Your task to perform on an android device: snooze an email in the gmail app Image 0: 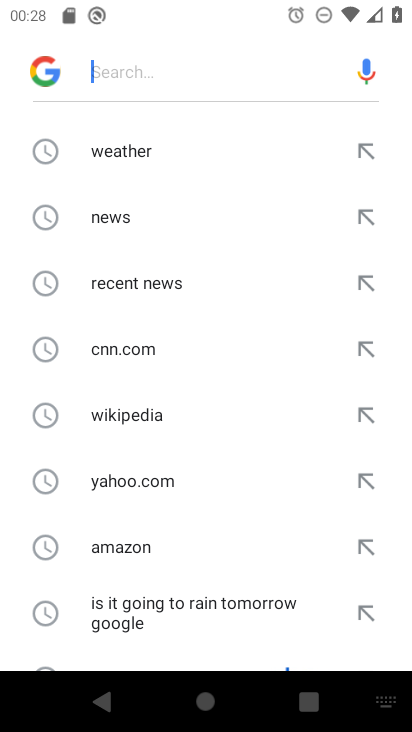
Step 0: press home button
Your task to perform on an android device: snooze an email in the gmail app Image 1: 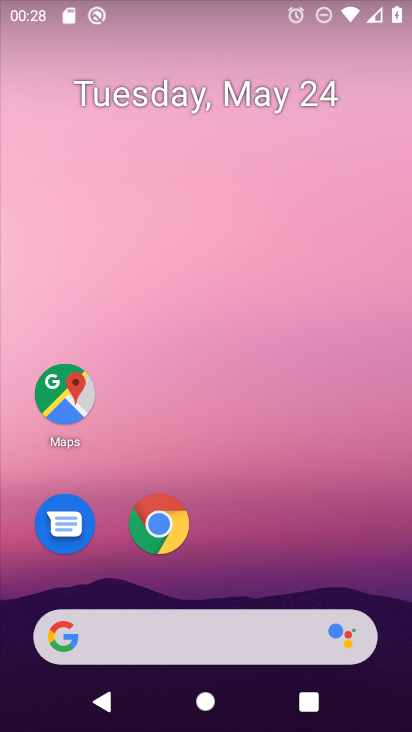
Step 1: drag from (213, 589) to (220, 173)
Your task to perform on an android device: snooze an email in the gmail app Image 2: 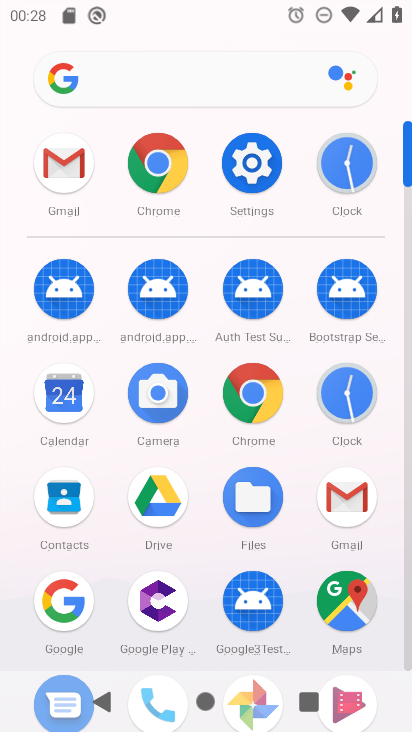
Step 2: click (71, 173)
Your task to perform on an android device: snooze an email in the gmail app Image 3: 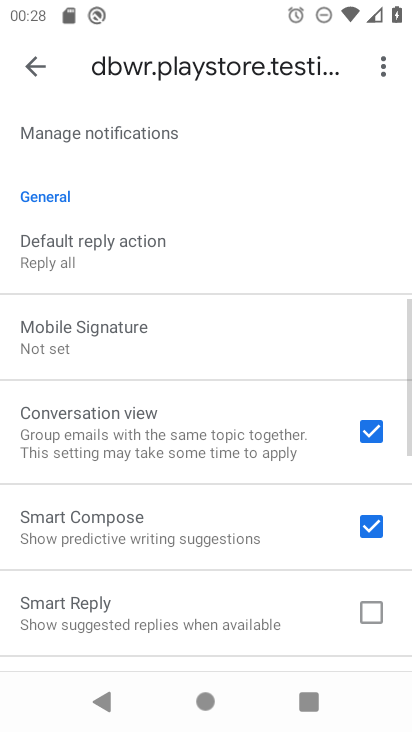
Step 3: drag from (124, 192) to (140, 539)
Your task to perform on an android device: snooze an email in the gmail app Image 4: 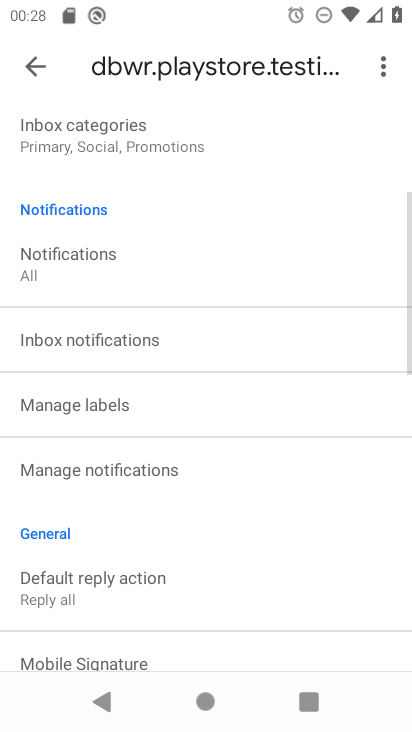
Step 4: drag from (175, 144) to (201, 297)
Your task to perform on an android device: snooze an email in the gmail app Image 5: 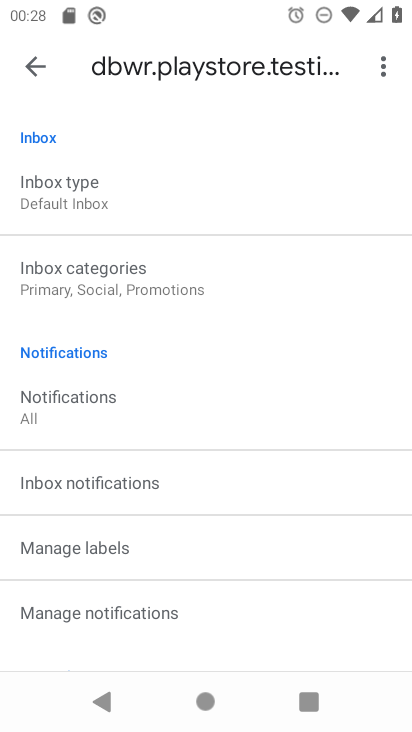
Step 5: drag from (215, 180) to (233, 357)
Your task to perform on an android device: snooze an email in the gmail app Image 6: 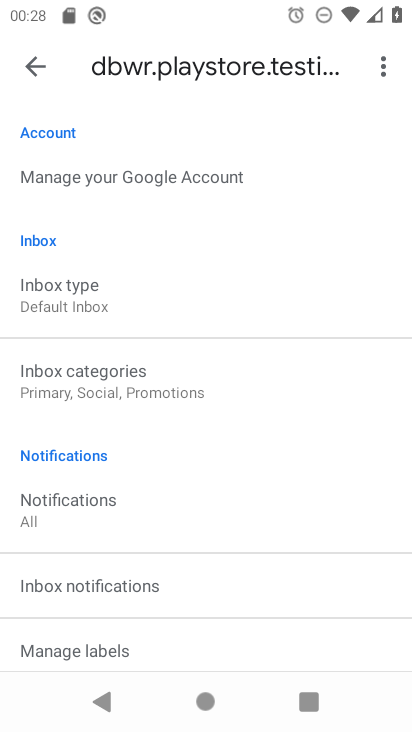
Step 6: drag from (185, 308) to (188, 540)
Your task to perform on an android device: snooze an email in the gmail app Image 7: 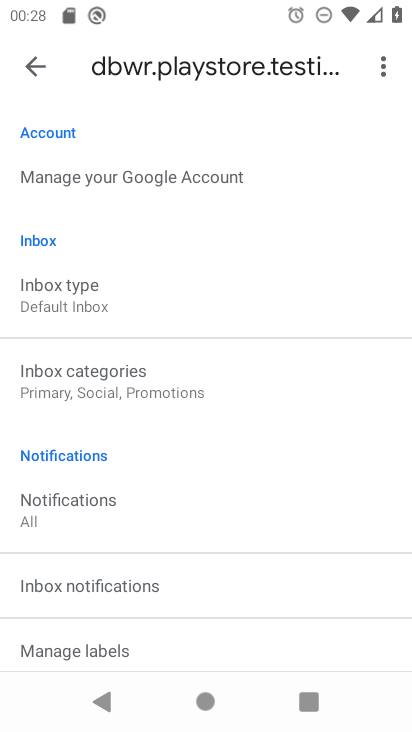
Step 7: click (43, 71)
Your task to perform on an android device: snooze an email in the gmail app Image 8: 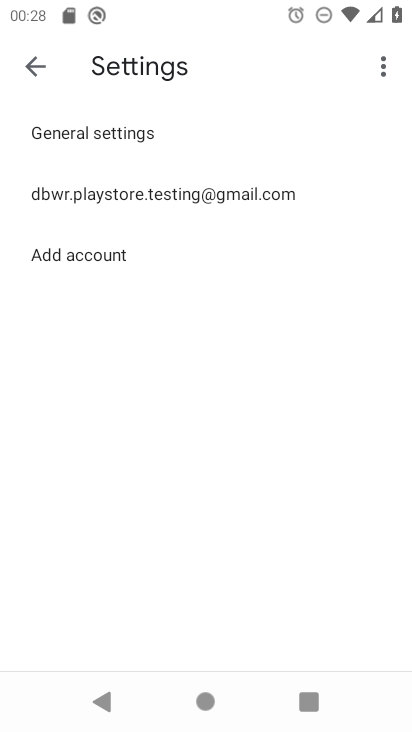
Step 8: click (33, 71)
Your task to perform on an android device: snooze an email in the gmail app Image 9: 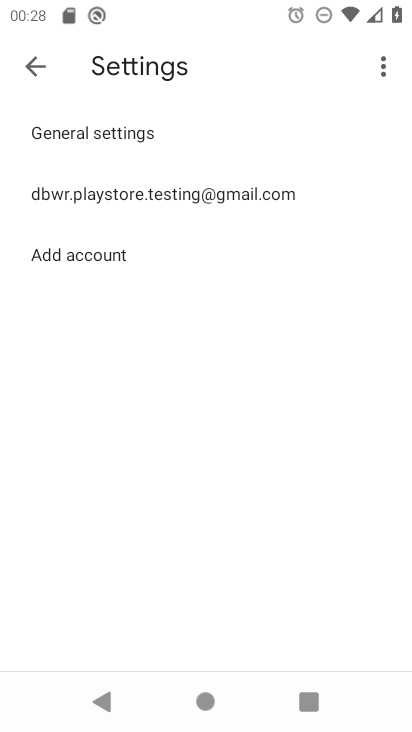
Step 9: click (35, 77)
Your task to perform on an android device: snooze an email in the gmail app Image 10: 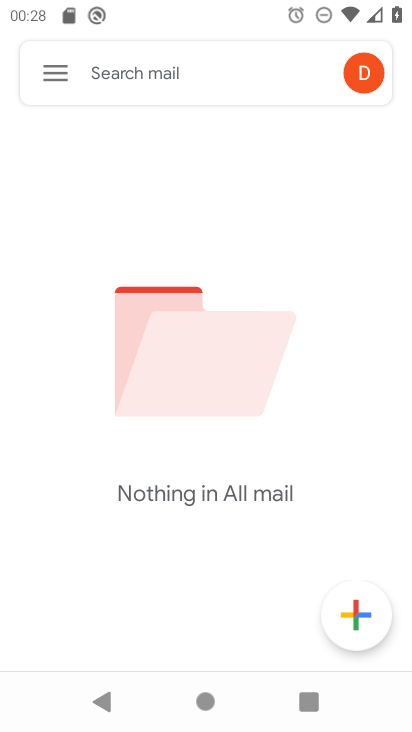
Step 10: click (41, 78)
Your task to perform on an android device: snooze an email in the gmail app Image 11: 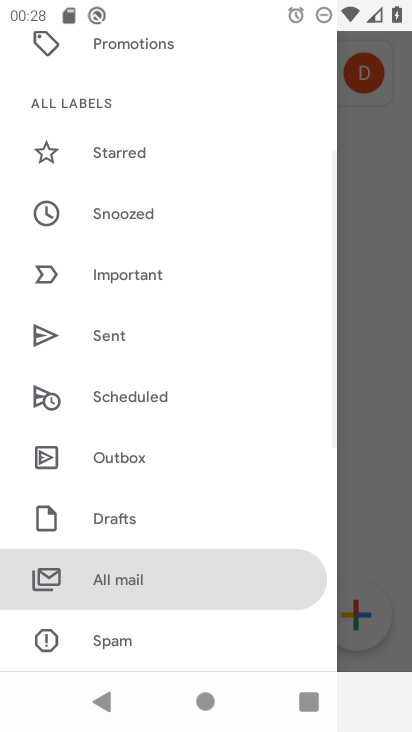
Step 11: click (123, 572)
Your task to perform on an android device: snooze an email in the gmail app Image 12: 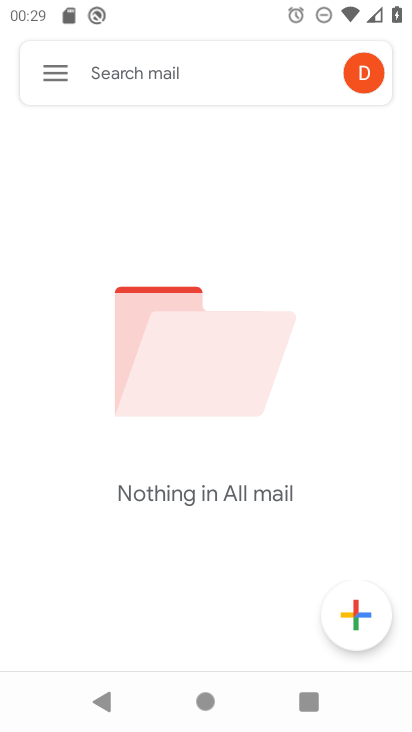
Step 12: task complete